Your task to perform on an android device: open app "Google Keep" Image 0: 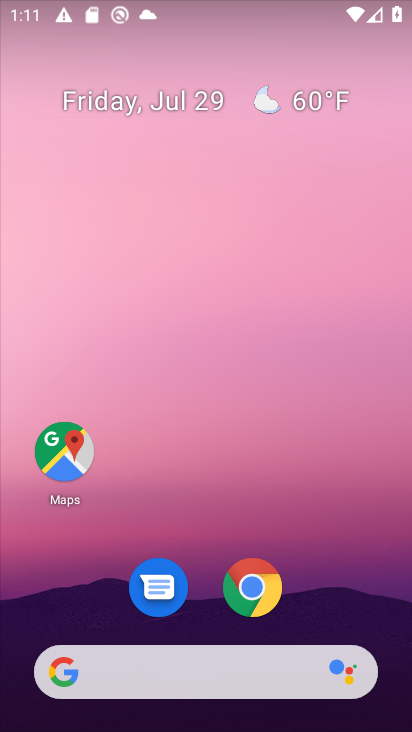
Step 0: drag from (196, 691) to (307, 9)
Your task to perform on an android device: open app "Google Keep" Image 1: 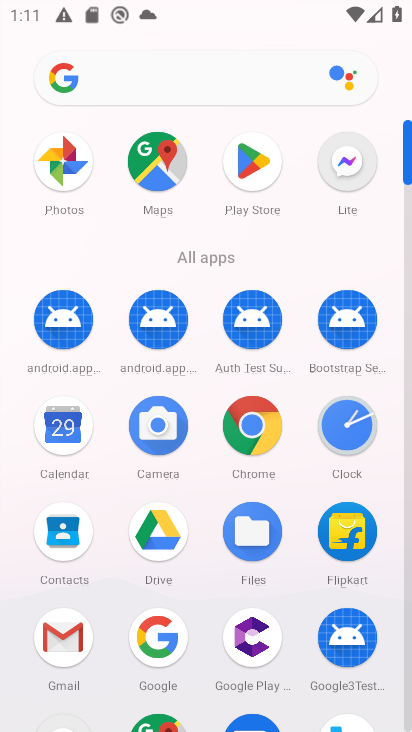
Step 1: click (261, 154)
Your task to perform on an android device: open app "Google Keep" Image 2: 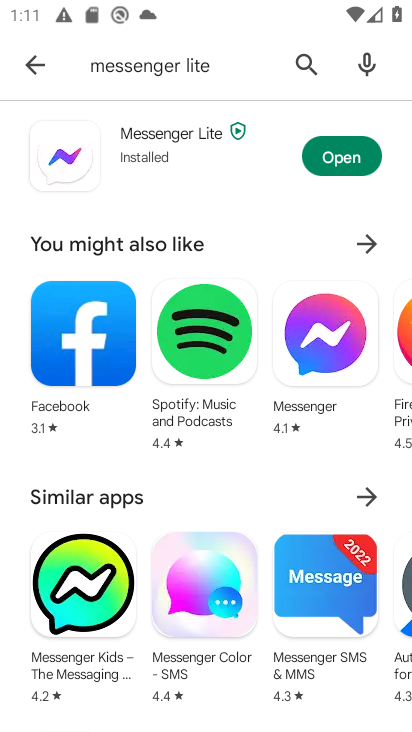
Step 2: click (306, 66)
Your task to perform on an android device: open app "Google Keep" Image 3: 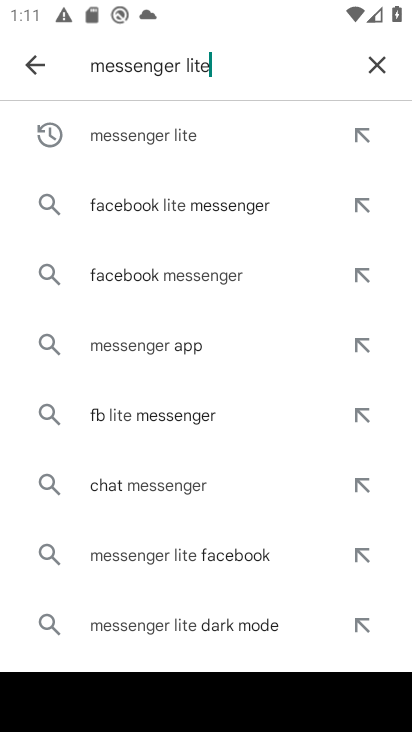
Step 3: click (381, 64)
Your task to perform on an android device: open app "Google Keep" Image 4: 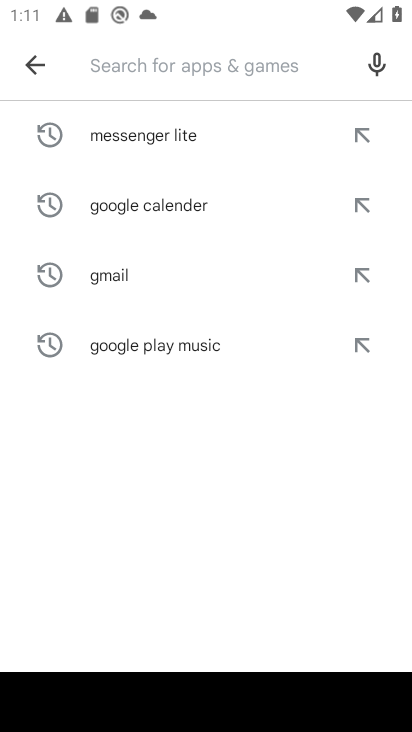
Step 4: type "google keep"
Your task to perform on an android device: open app "Google Keep" Image 5: 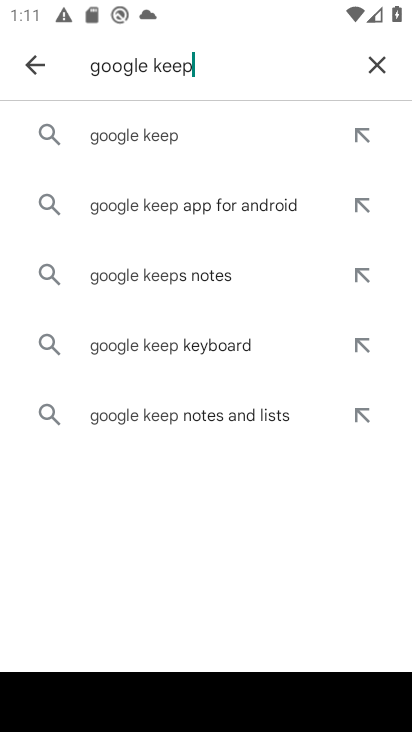
Step 5: click (190, 144)
Your task to perform on an android device: open app "Google Keep" Image 6: 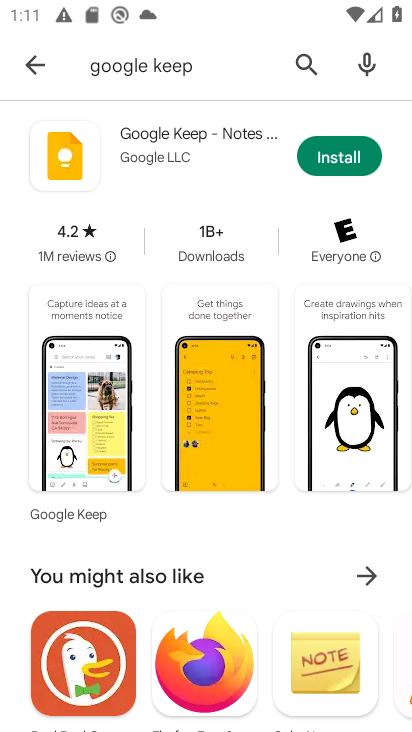
Step 6: task complete